Your task to perform on an android device: Search for pizza restaurants on Maps Image 0: 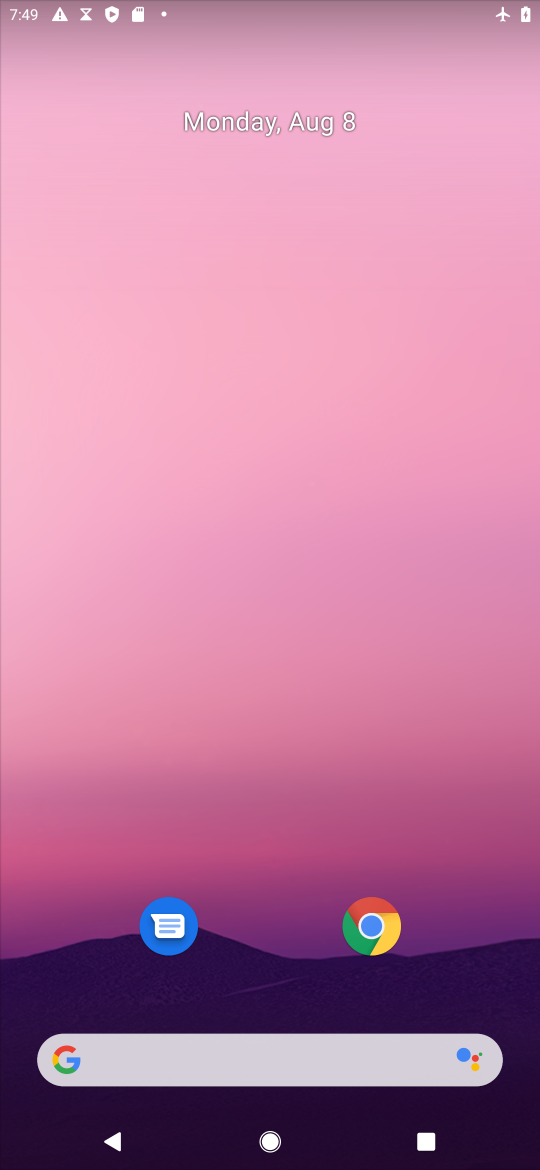
Step 0: click (264, 649)
Your task to perform on an android device: Search for pizza restaurants on Maps Image 1: 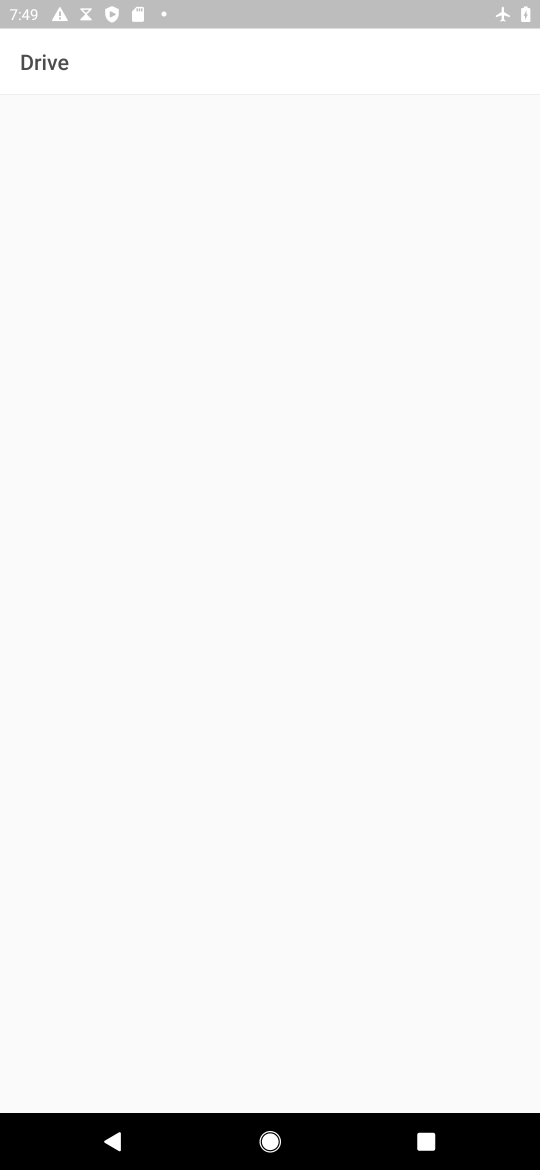
Step 1: press home button
Your task to perform on an android device: Search for pizza restaurants on Maps Image 2: 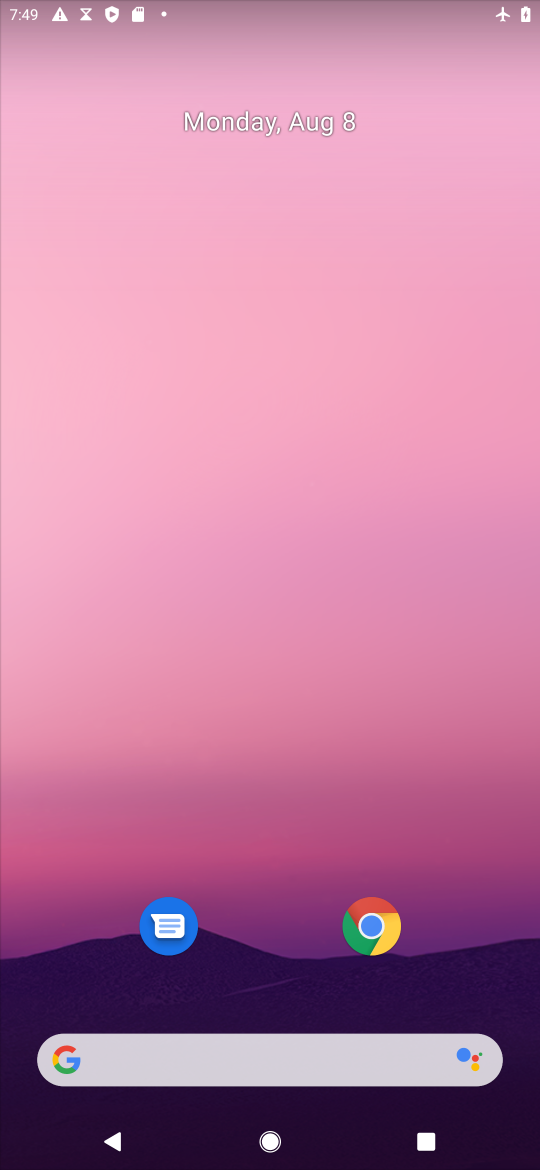
Step 2: drag from (264, 980) to (379, 179)
Your task to perform on an android device: Search for pizza restaurants on Maps Image 3: 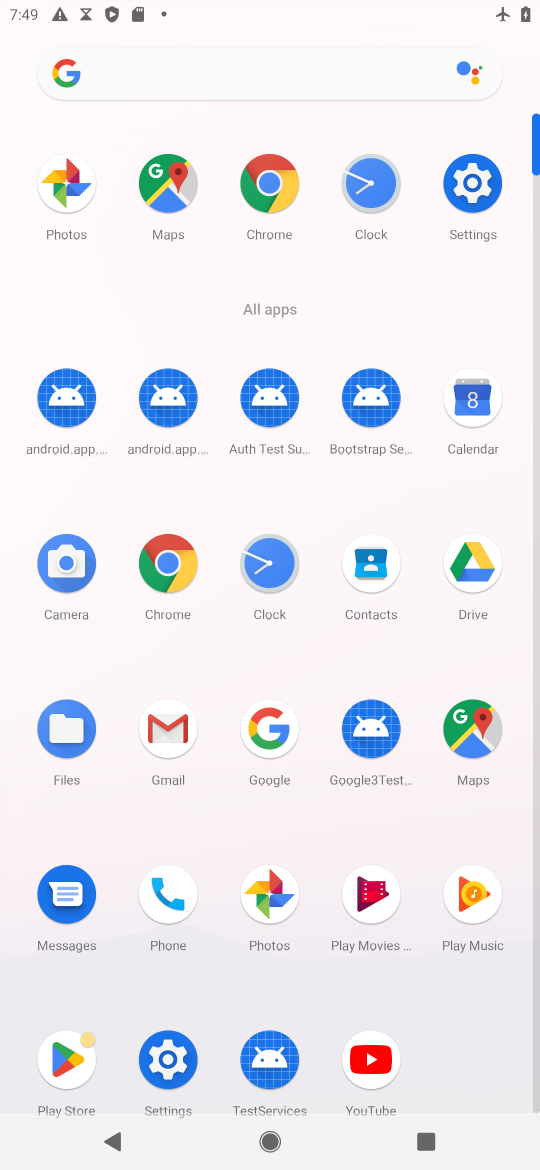
Step 3: click (480, 738)
Your task to perform on an android device: Search for pizza restaurants on Maps Image 4: 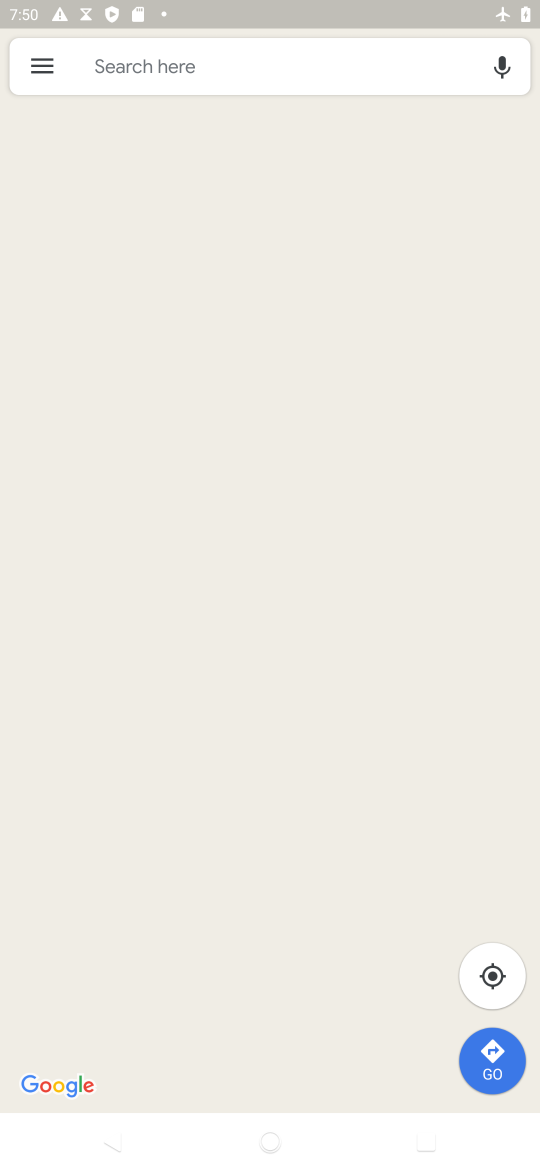
Step 4: click (313, 55)
Your task to perform on an android device: Search for pizza restaurants on Maps Image 5: 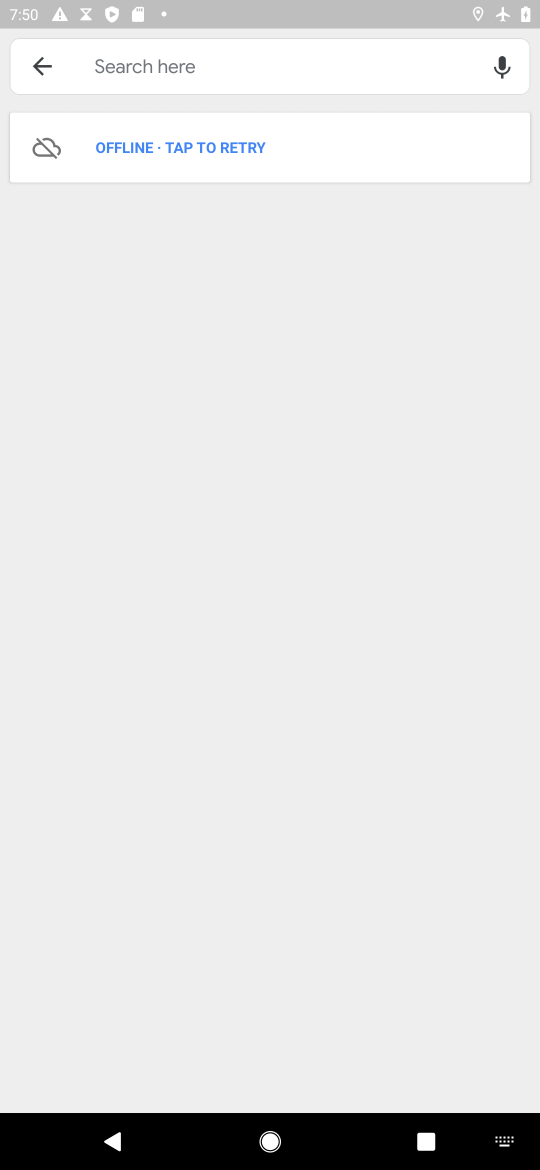
Step 5: type "Pizza restaurants"
Your task to perform on an android device: Search for pizza restaurants on Maps Image 6: 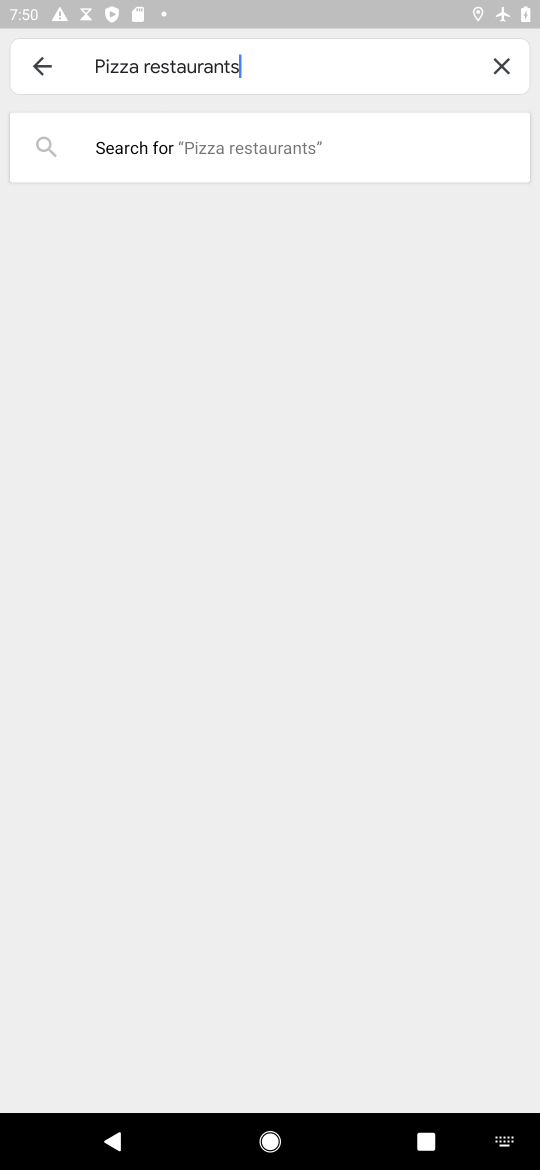
Step 6: click (286, 138)
Your task to perform on an android device: Search for pizza restaurants on Maps Image 7: 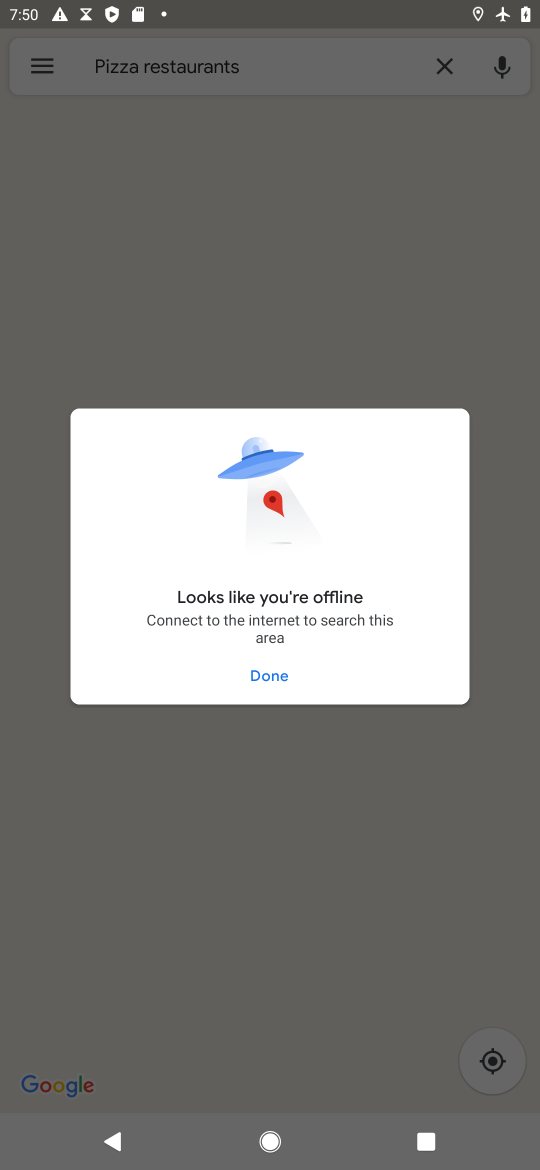
Step 7: task complete